Your task to perform on an android device: open a new tab in the chrome app Image 0: 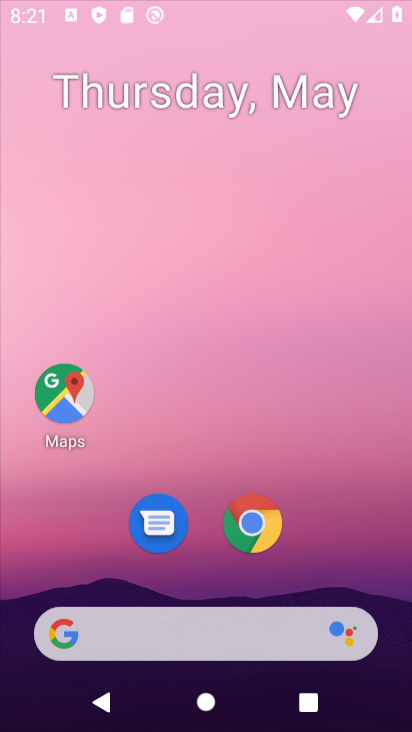
Step 0: press home button
Your task to perform on an android device: open a new tab in the chrome app Image 1: 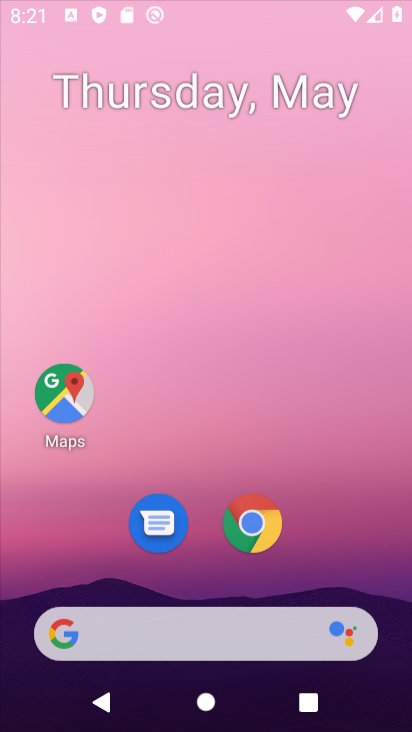
Step 1: click (232, 111)
Your task to perform on an android device: open a new tab in the chrome app Image 2: 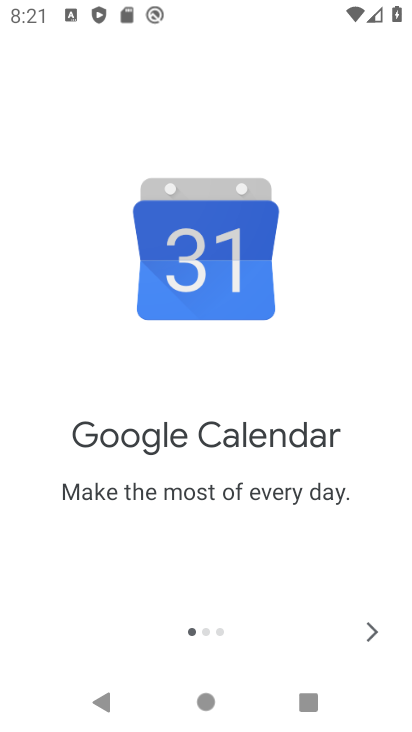
Step 2: press home button
Your task to perform on an android device: open a new tab in the chrome app Image 3: 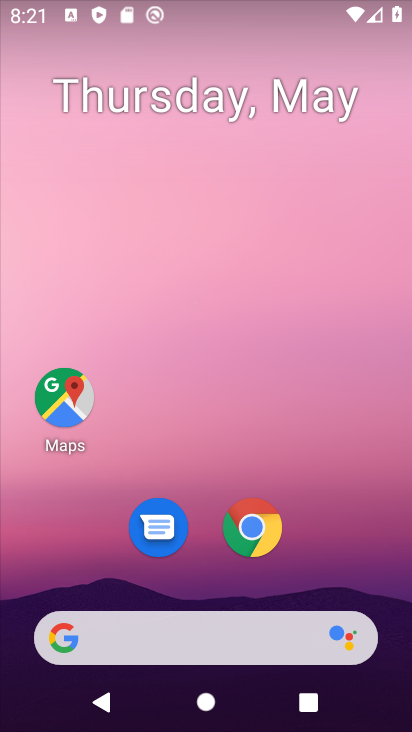
Step 3: click (256, 525)
Your task to perform on an android device: open a new tab in the chrome app Image 4: 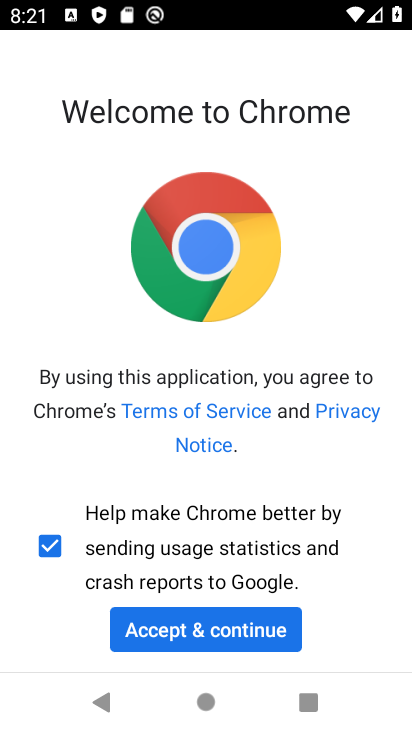
Step 4: click (182, 639)
Your task to perform on an android device: open a new tab in the chrome app Image 5: 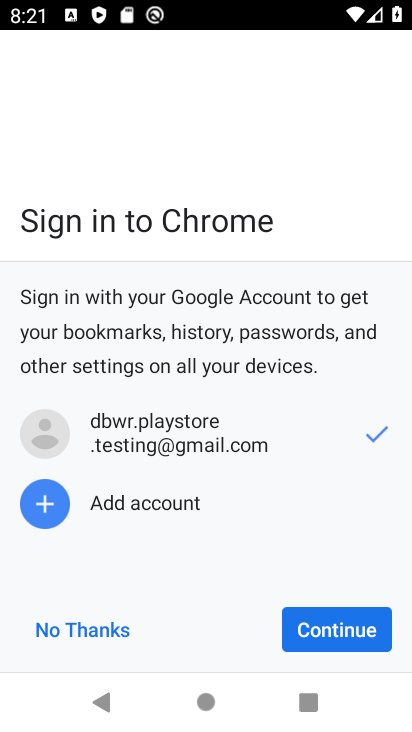
Step 5: click (113, 625)
Your task to perform on an android device: open a new tab in the chrome app Image 6: 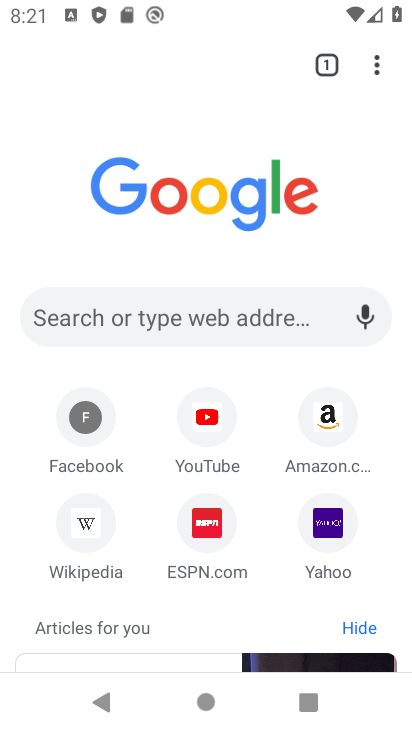
Step 6: click (327, 67)
Your task to perform on an android device: open a new tab in the chrome app Image 7: 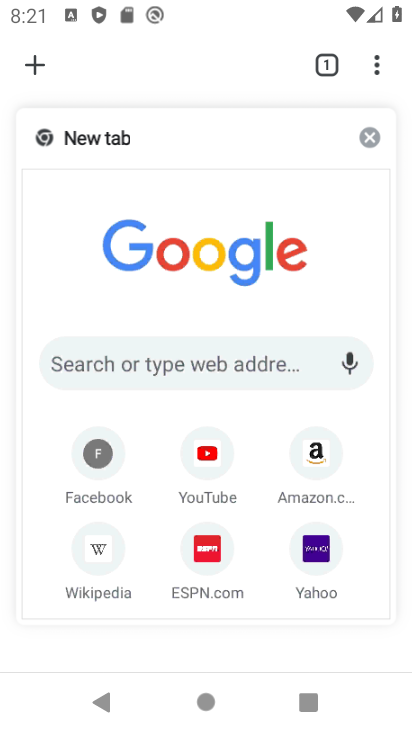
Step 7: click (24, 68)
Your task to perform on an android device: open a new tab in the chrome app Image 8: 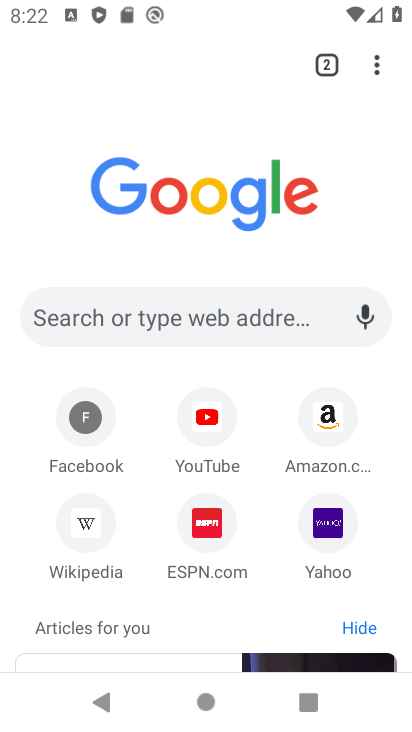
Step 8: task complete